Your task to perform on an android device: open device folders in google photos Image 0: 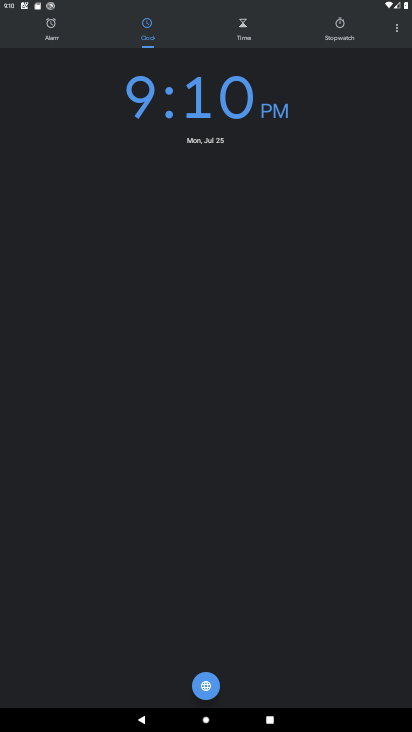
Step 0: press home button
Your task to perform on an android device: open device folders in google photos Image 1: 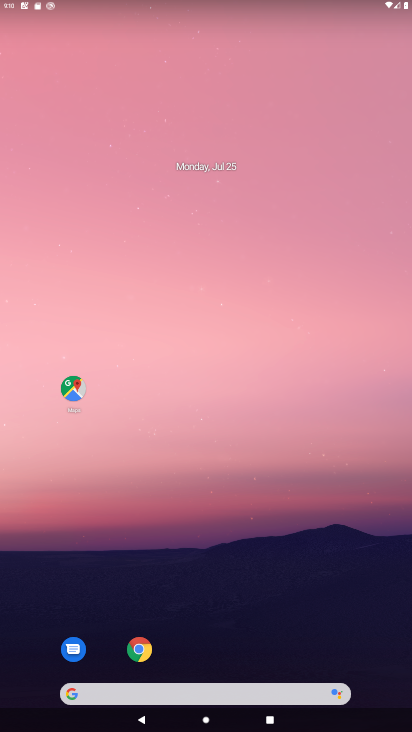
Step 1: drag from (273, 675) to (131, 153)
Your task to perform on an android device: open device folders in google photos Image 2: 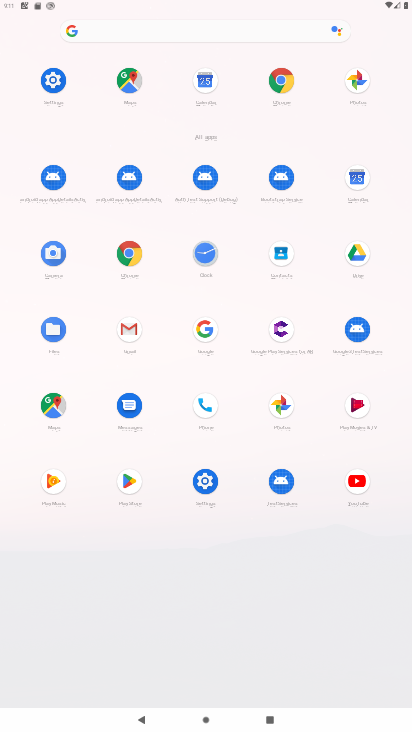
Step 2: click (280, 406)
Your task to perform on an android device: open device folders in google photos Image 3: 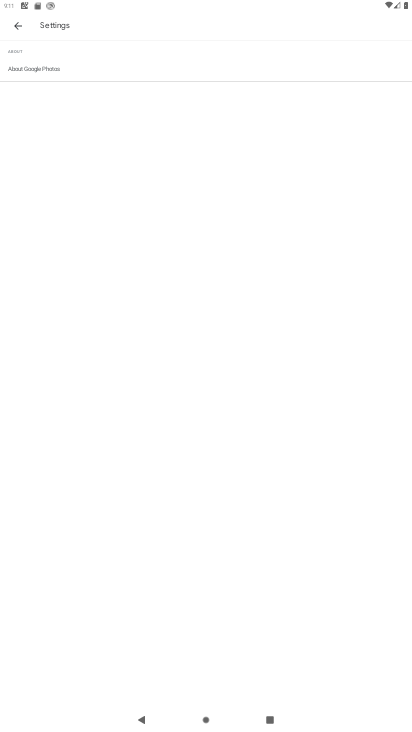
Step 3: click (16, 24)
Your task to perform on an android device: open device folders in google photos Image 4: 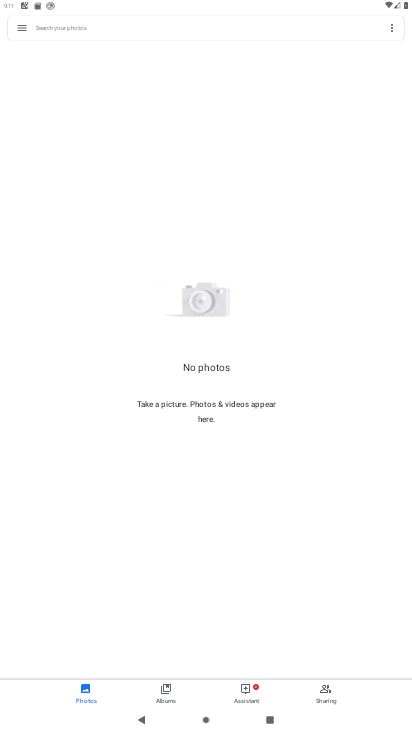
Step 4: click (16, 24)
Your task to perform on an android device: open device folders in google photos Image 5: 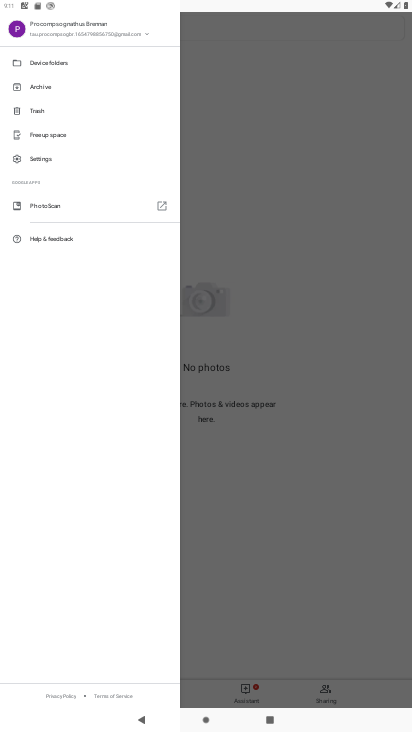
Step 5: click (82, 70)
Your task to perform on an android device: open device folders in google photos Image 6: 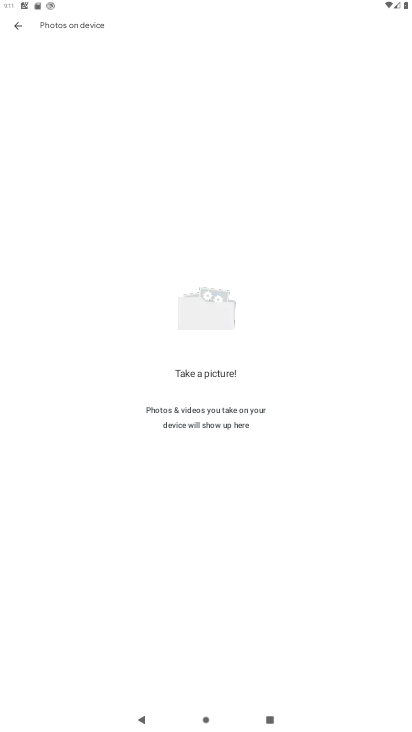
Step 6: task complete